Your task to perform on an android device: turn off notifications settings in the gmail app Image 0: 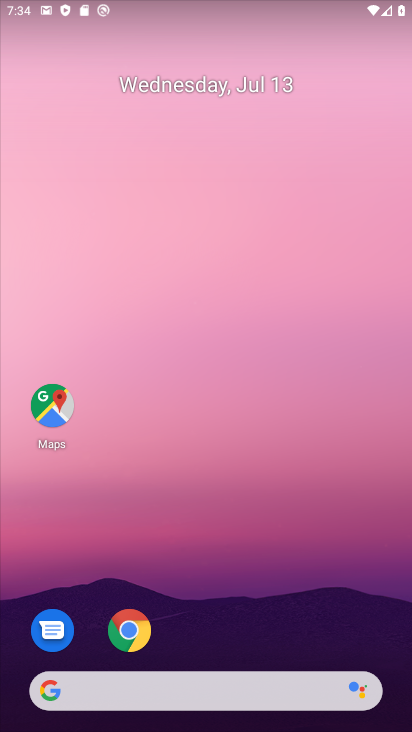
Step 0: drag from (200, 395) to (227, 253)
Your task to perform on an android device: turn off notifications settings in the gmail app Image 1: 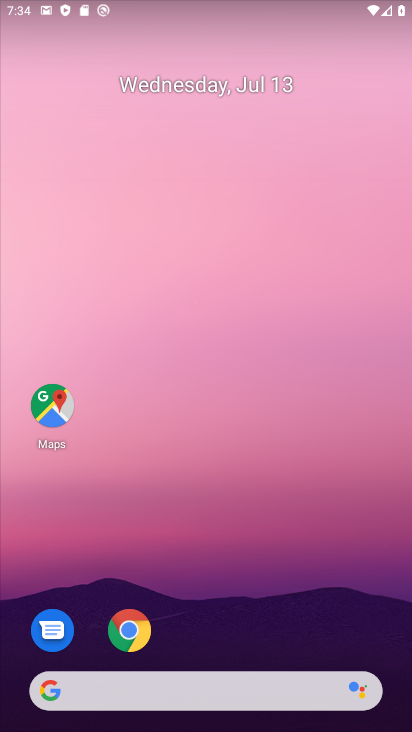
Step 1: drag from (184, 645) to (212, 174)
Your task to perform on an android device: turn off notifications settings in the gmail app Image 2: 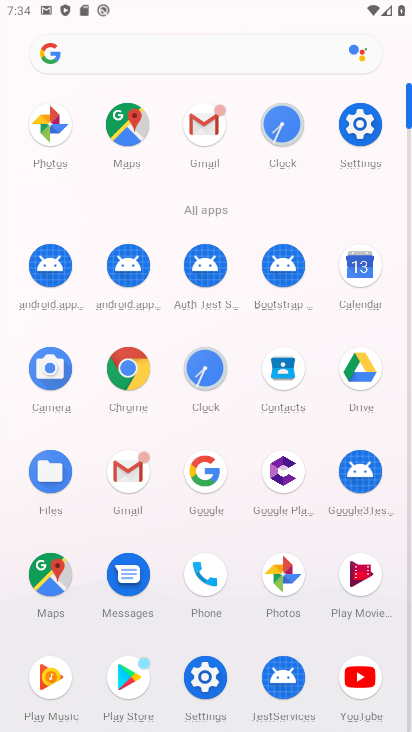
Step 2: click (138, 470)
Your task to perform on an android device: turn off notifications settings in the gmail app Image 3: 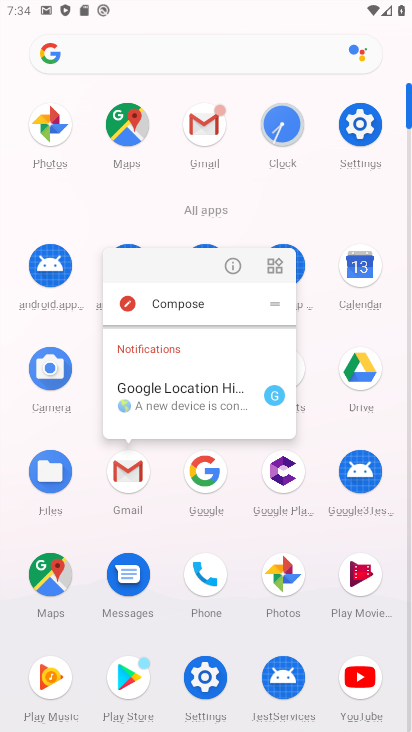
Step 3: click (224, 254)
Your task to perform on an android device: turn off notifications settings in the gmail app Image 4: 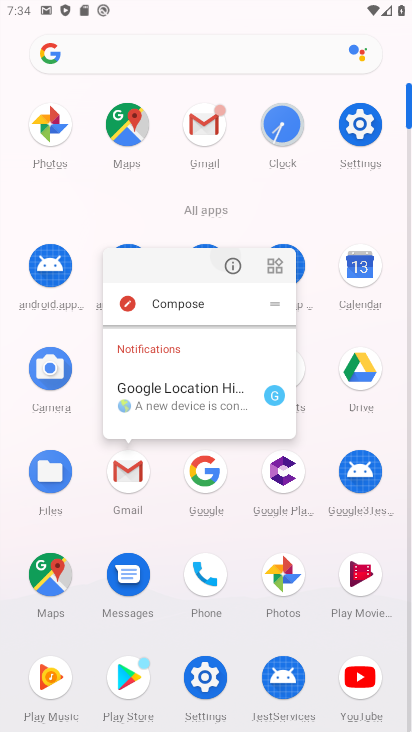
Step 4: click (224, 256)
Your task to perform on an android device: turn off notifications settings in the gmail app Image 5: 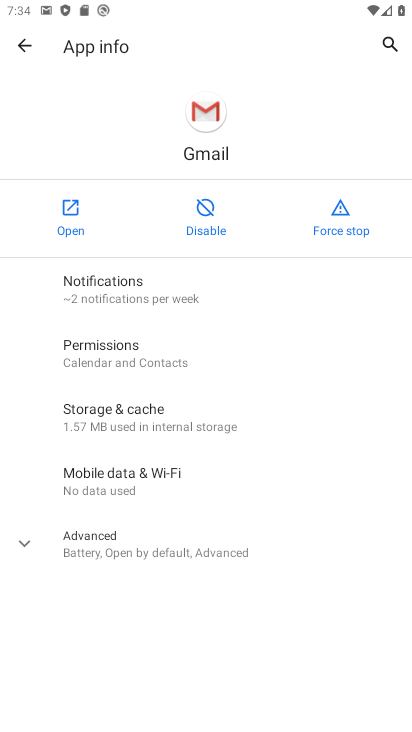
Step 5: click (57, 208)
Your task to perform on an android device: turn off notifications settings in the gmail app Image 6: 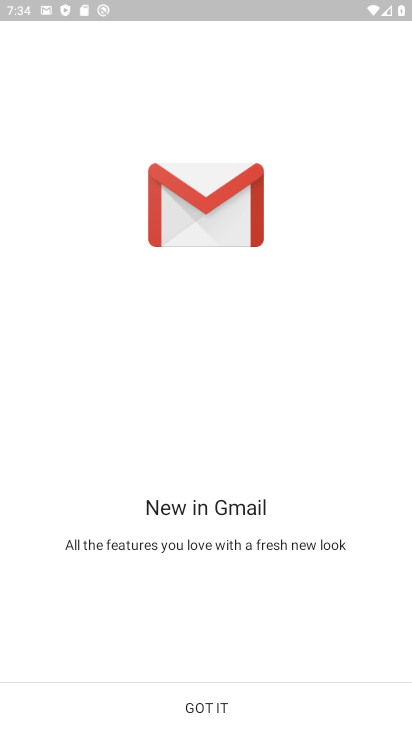
Step 6: click (193, 705)
Your task to perform on an android device: turn off notifications settings in the gmail app Image 7: 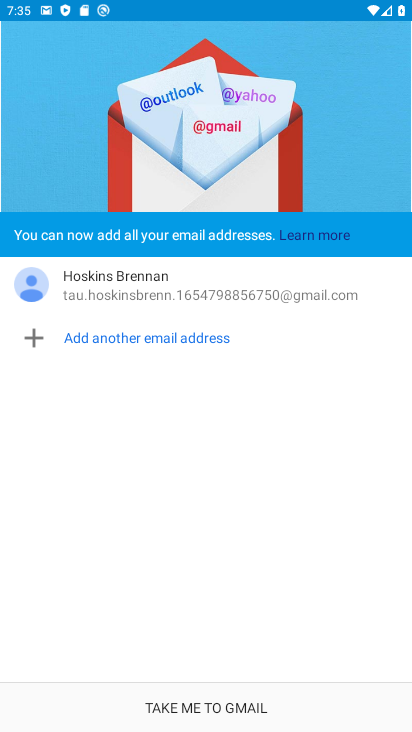
Step 7: click (198, 707)
Your task to perform on an android device: turn off notifications settings in the gmail app Image 8: 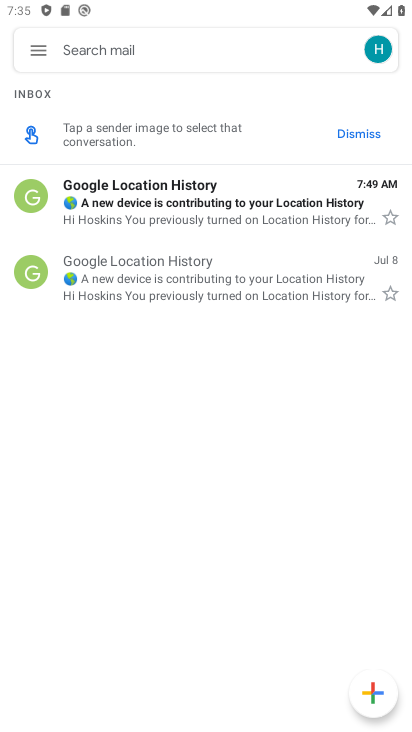
Step 8: click (31, 57)
Your task to perform on an android device: turn off notifications settings in the gmail app Image 9: 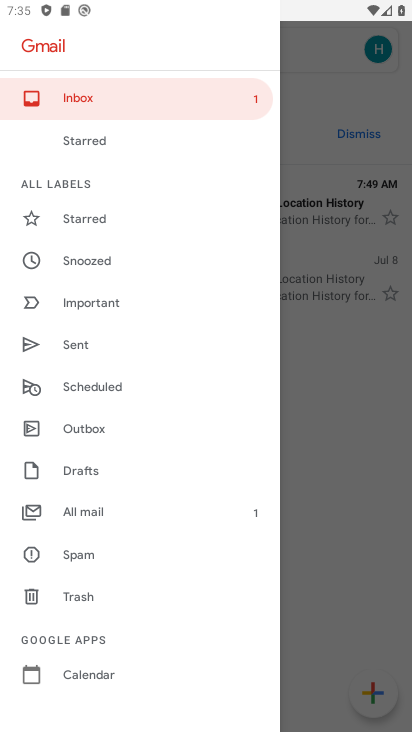
Step 9: drag from (113, 652) to (249, 133)
Your task to perform on an android device: turn off notifications settings in the gmail app Image 10: 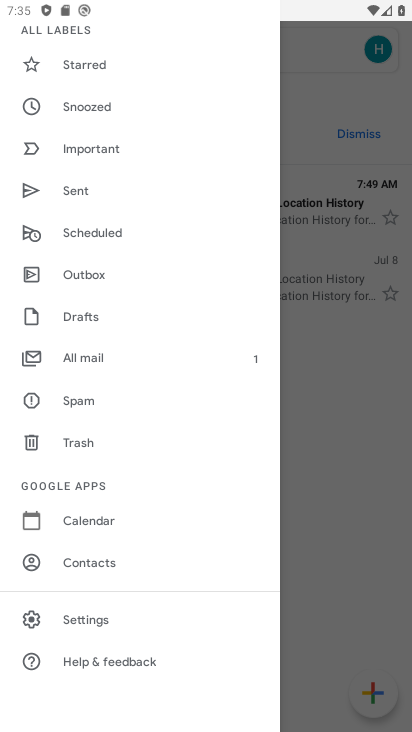
Step 10: drag from (134, 628) to (180, 283)
Your task to perform on an android device: turn off notifications settings in the gmail app Image 11: 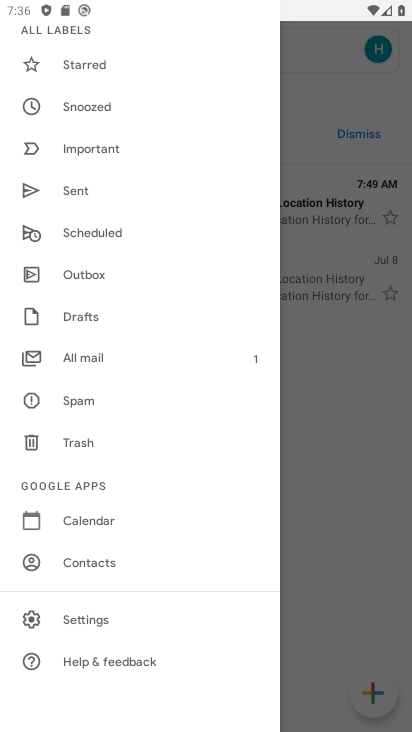
Step 11: click (91, 619)
Your task to perform on an android device: turn off notifications settings in the gmail app Image 12: 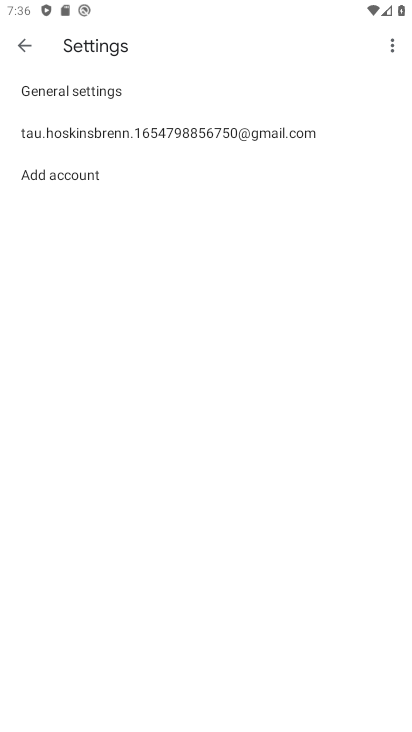
Step 12: drag from (168, 619) to (223, 281)
Your task to perform on an android device: turn off notifications settings in the gmail app Image 13: 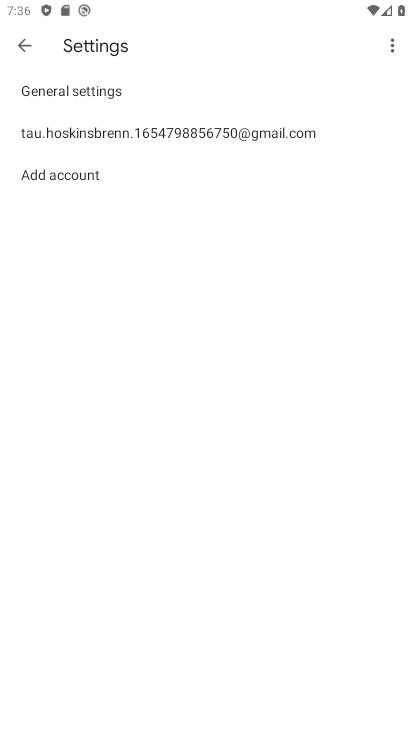
Step 13: click (130, 141)
Your task to perform on an android device: turn off notifications settings in the gmail app Image 14: 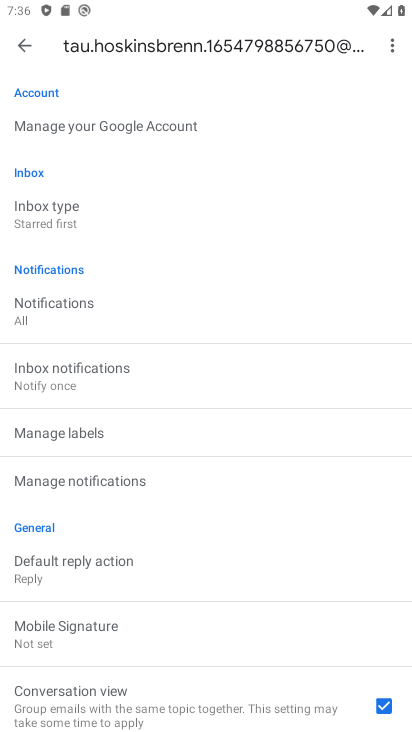
Step 14: click (127, 476)
Your task to perform on an android device: turn off notifications settings in the gmail app Image 15: 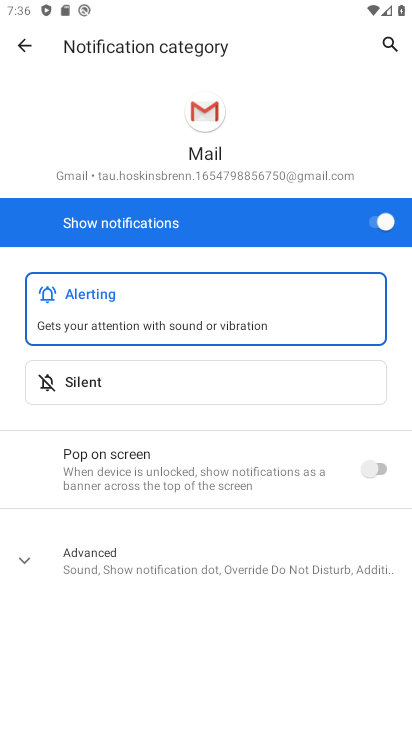
Step 15: drag from (121, 711) to (273, 220)
Your task to perform on an android device: turn off notifications settings in the gmail app Image 16: 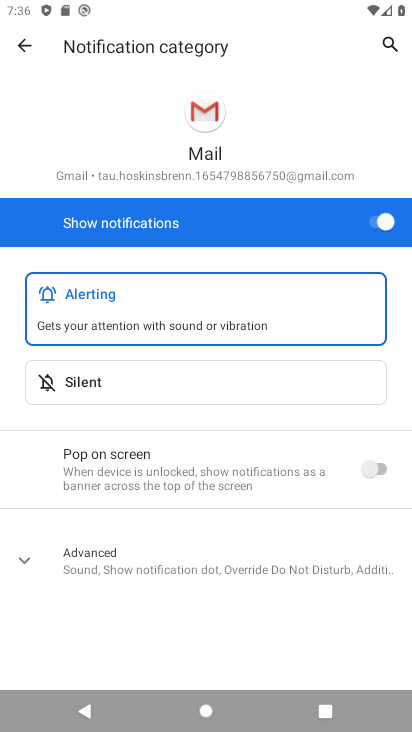
Step 16: click (382, 222)
Your task to perform on an android device: turn off notifications settings in the gmail app Image 17: 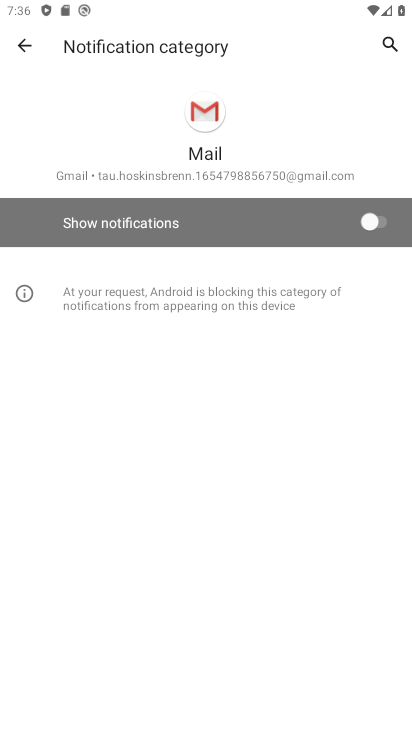
Step 17: task complete